Your task to perform on an android device: turn off priority inbox in the gmail app Image 0: 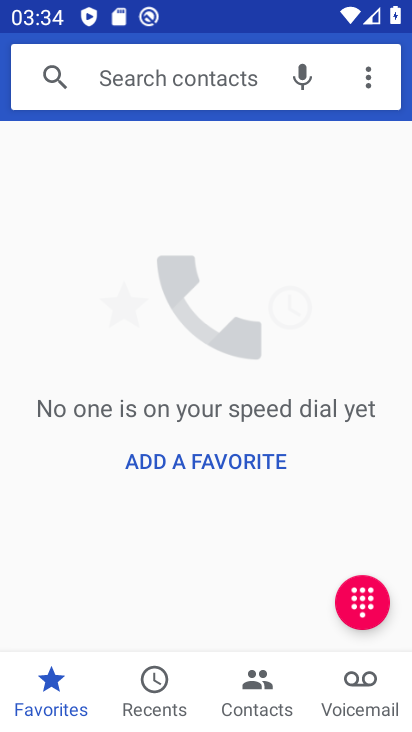
Step 0: press back button
Your task to perform on an android device: turn off priority inbox in the gmail app Image 1: 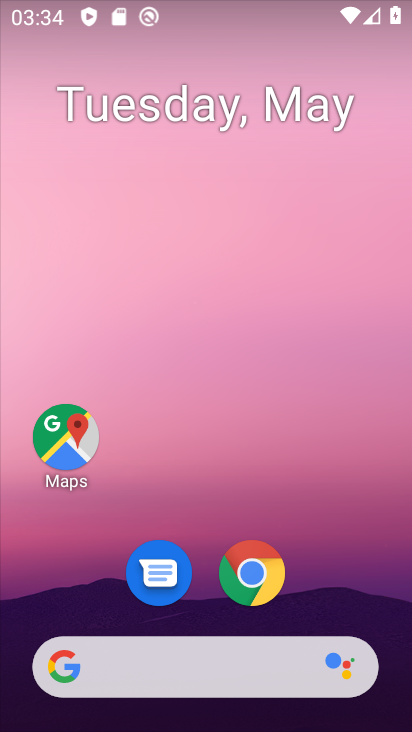
Step 1: drag from (192, 500) to (304, 0)
Your task to perform on an android device: turn off priority inbox in the gmail app Image 2: 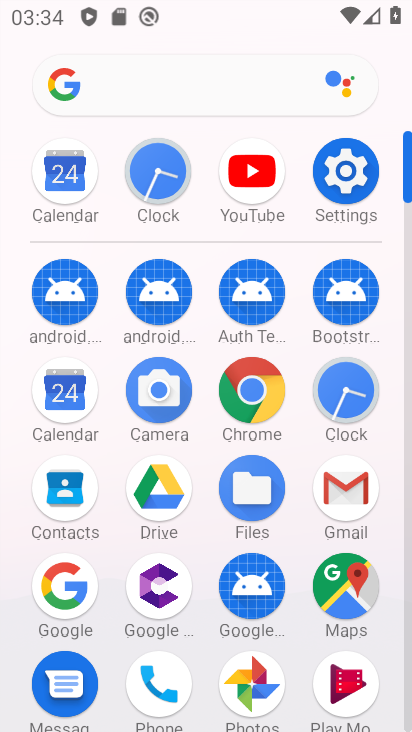
Step 2: click (333, 497)
Your task to perform on an android device: turn off priority inbox in the gmail app Image 3: 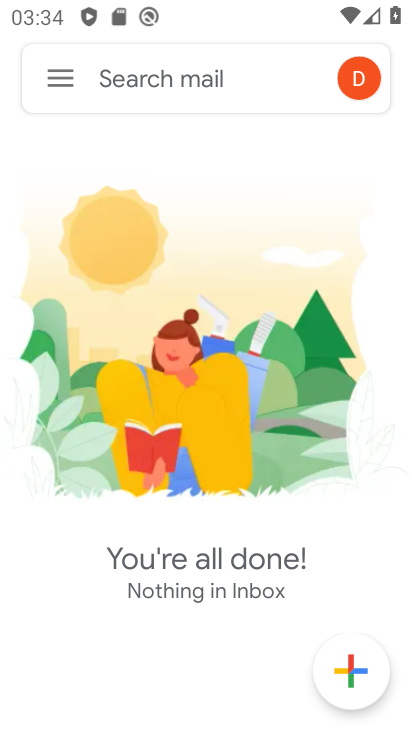
Step 3: click (53, 80)
Your task to perform on an android device: turn off priority inbox in the gmail app Image 4: 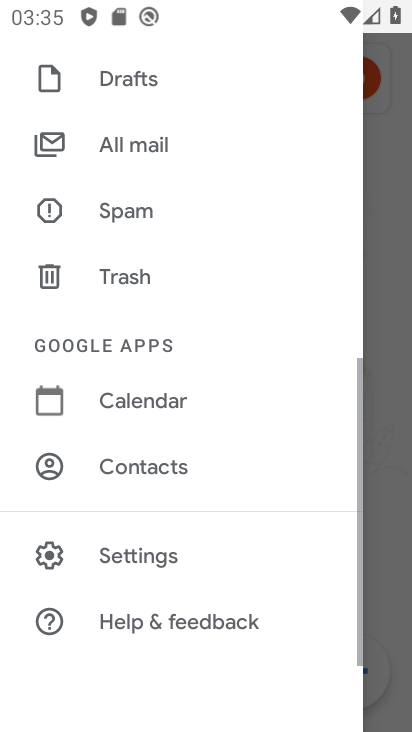
Step 4: click (136, 559)
Your task to perform on an android device: turn off priority inbox in the gmail app Image 5: 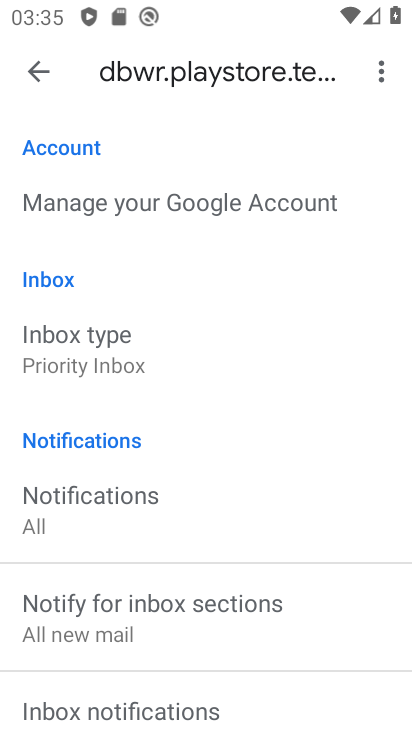
Step 5: click (118, 346)
Your task to perform on an android device: turn off priority inbox in the gmail app Image 6: 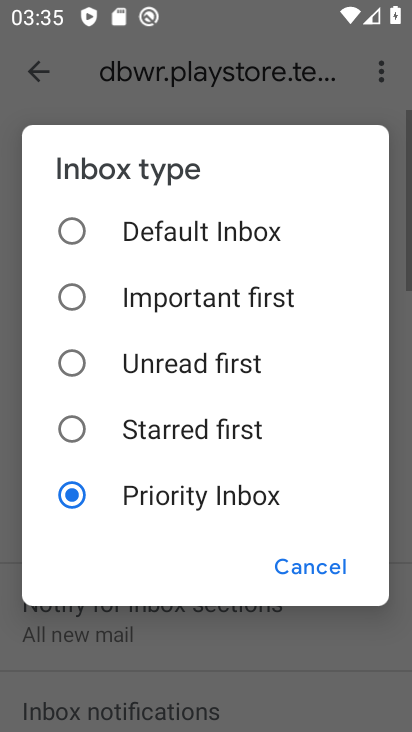
Step 6: click (78, 224)
Your task to perform on an android device: turn off priority inbox in the gmail app Image 7: 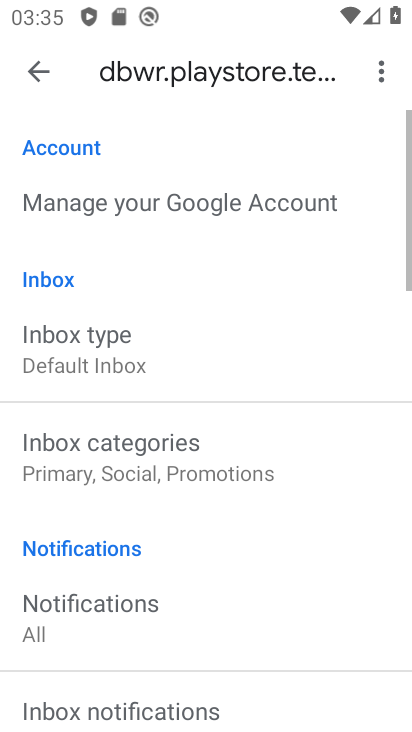
Step 7: task complete